Your task to perform on an android device: turn smart compose on in the gmail app Image 0: 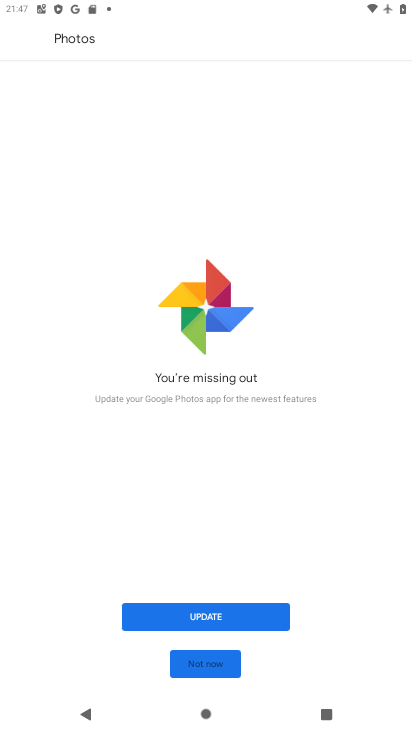
Step 0: press home button
Your task to perform on an android device: turn smart compose on in the gmail app Image 1: 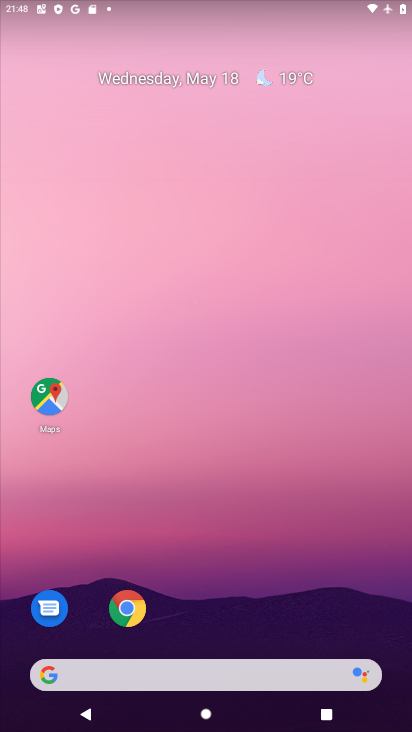
Step 1: drag from (221, 619) to (298, 164)
Your task to perform on an android device: turn smart compose on in the gmail app Image 2: 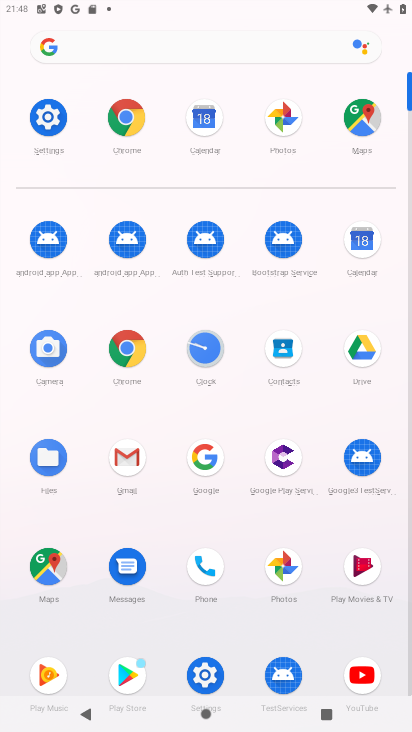
Step 2: click (123, 465)
Your task to perform on an android device: turn smart compose on in the gmail app Image 3: 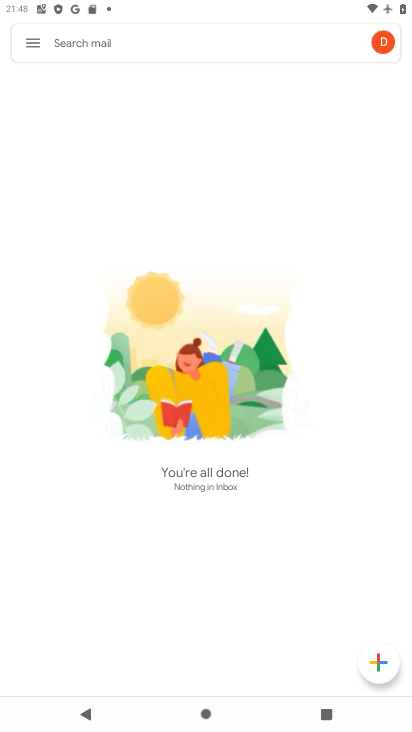
Step 3: click (23, 42)
Your task to perform on an android device: turn smart compose on in the gmail app Image 4: 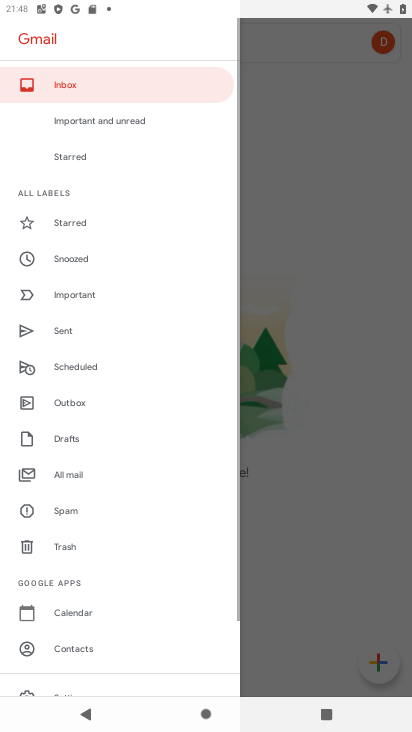
Step 4: drag from (98, 656) to (117, 371)
Your task to perform on an android device: turn smart compose on in the gmail app Image 5: 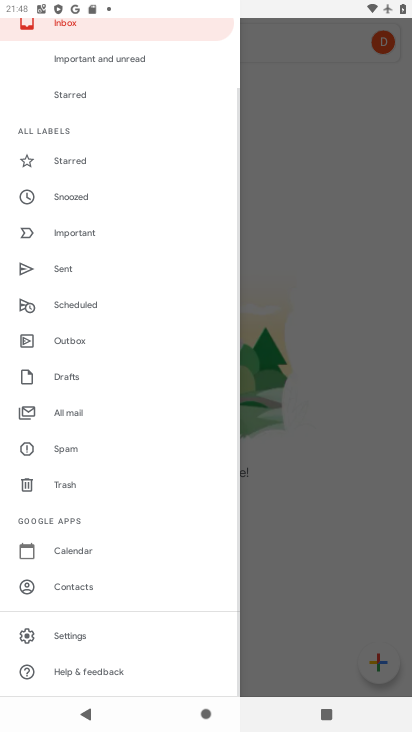
Step 5: click (87, 646)
Your task to perform on an android device: turn smart compose on in the gmail app Image 6: 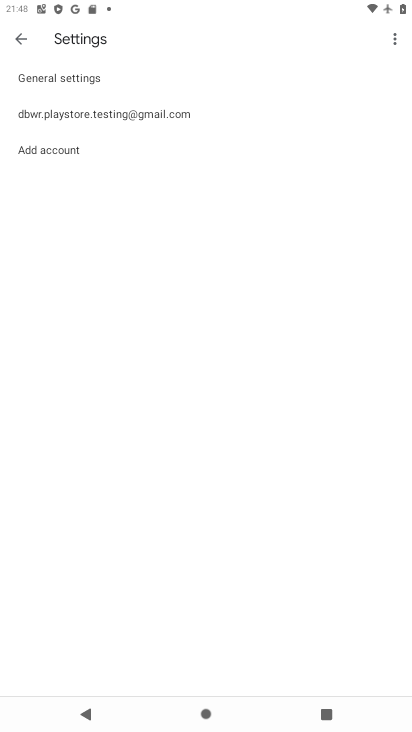
Step 6: click (153, 109)
Your task to perform on an android device: turn smart compose on in the gmail app Image 7: 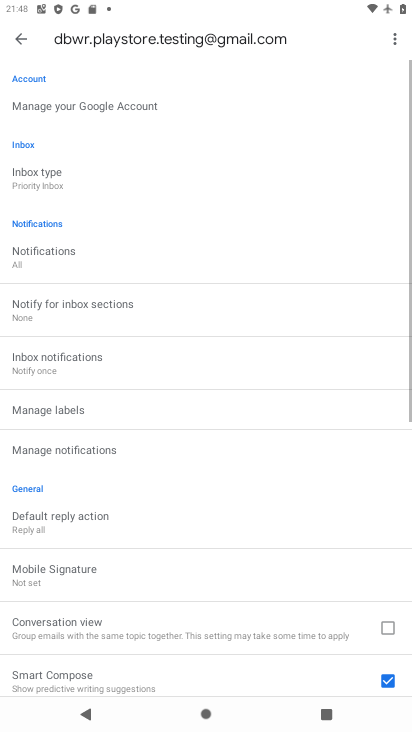
Step 7: task complete